Your task to perform on an android device: Open calendar and show me the first week of next month Image 0: 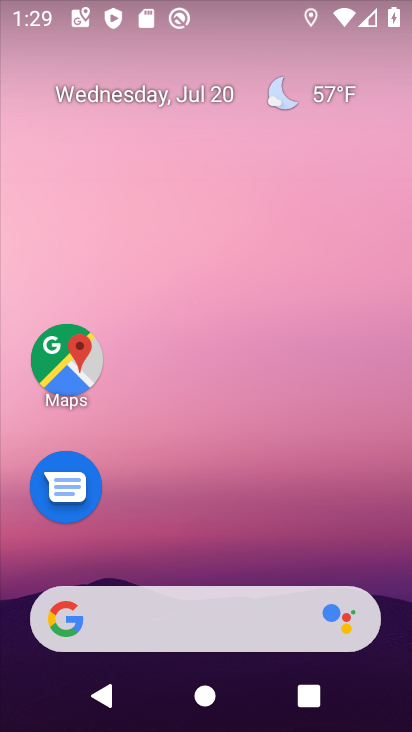
Step 0: drag from (178, 455) to (236, 61)
Your task to perform on an android device: Open calendar and show me the first week of next month Image 1: 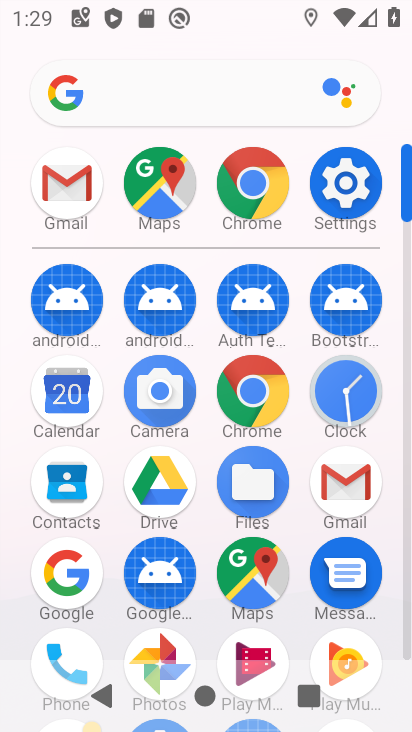
Step 1: click (66, 389)
Your task to perform on an android device: Open calendar and show me the first week of next month Image 2: 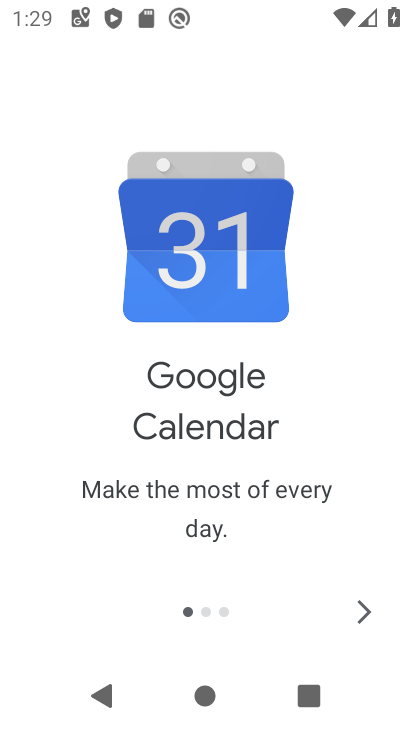
Step 2: click (361, 615)
Your task to perform on an android device: Open calendar and show me the first week of next month Image 3: 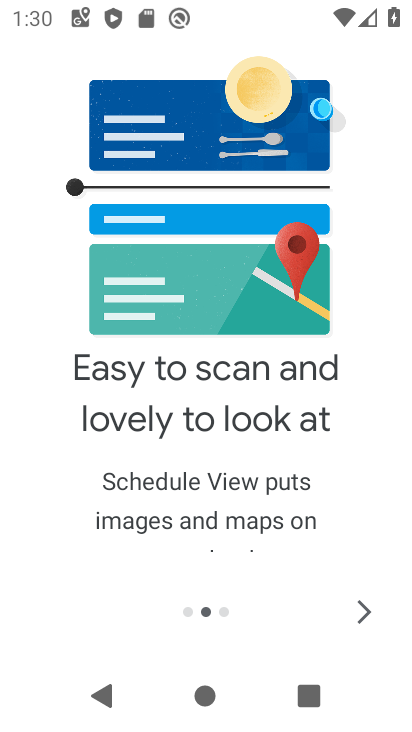
Step 3: click (359, 606)
Your task to perform on an android device: Open calendar and show me the first week of next month Image 4: 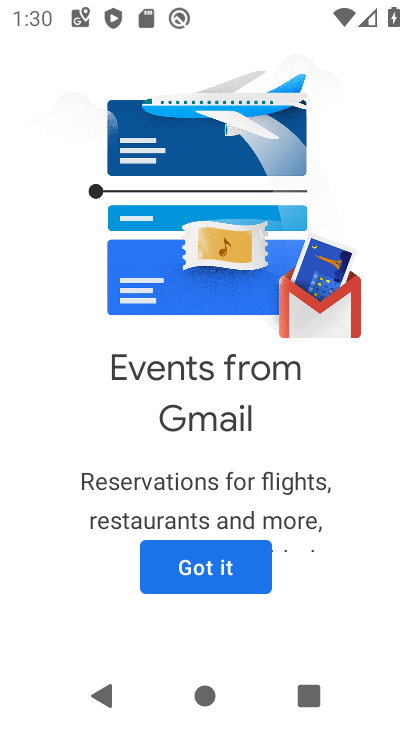
Step 4: click (218, 561)
Your task to perform on an android device: Open calendar and show me the first week of next month Image 5: 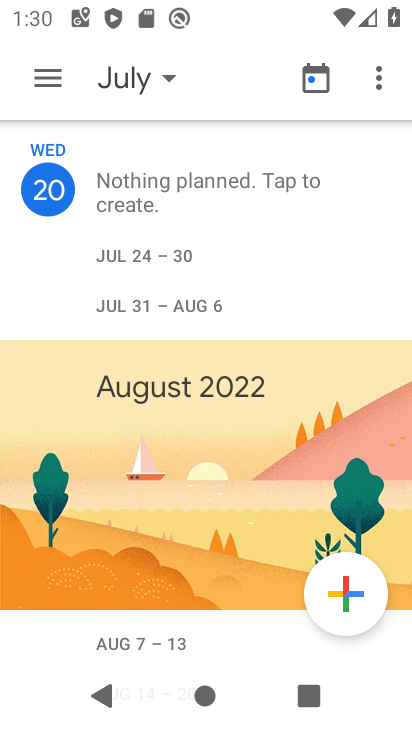
Step 5: click (142, 86)
Your task to perform on an android device: Open calendar and show me the first week of next month Image 6: 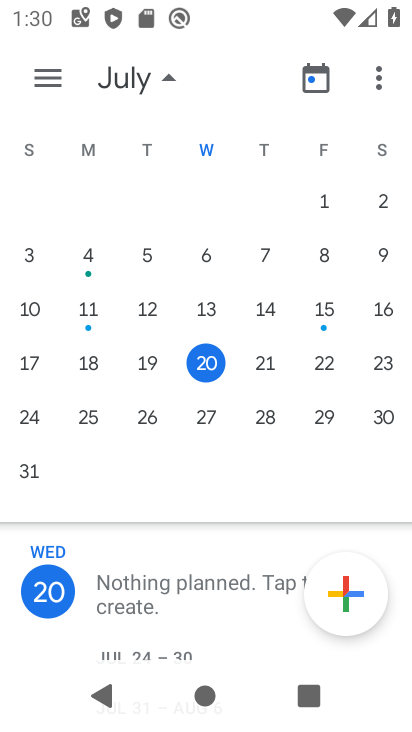
Step 6: drag from (375, 317) to (0, 308)
Your task to perform on an android device: Open calendar and show me the first week of next month Image 7: 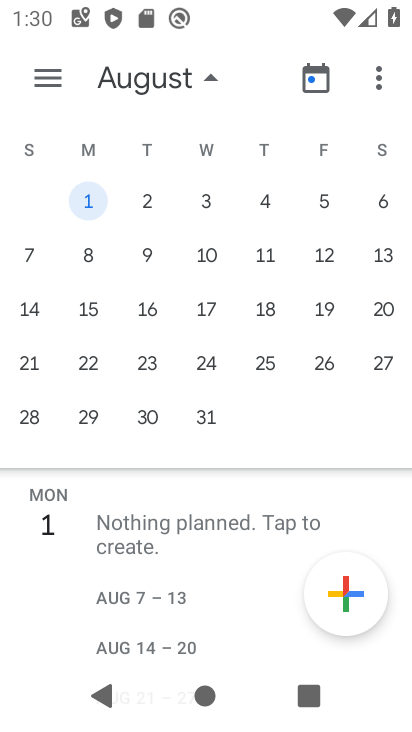
Step 7: click (90, 198)
Your task to perform on an android device: Open calendar and show me the first week of next month Image 8: 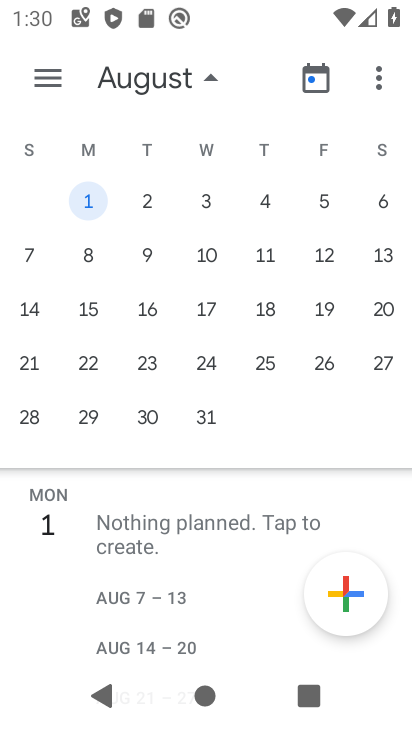
Step 8: task complete